Your task to perform on an android device: change notifications settings Image 0: 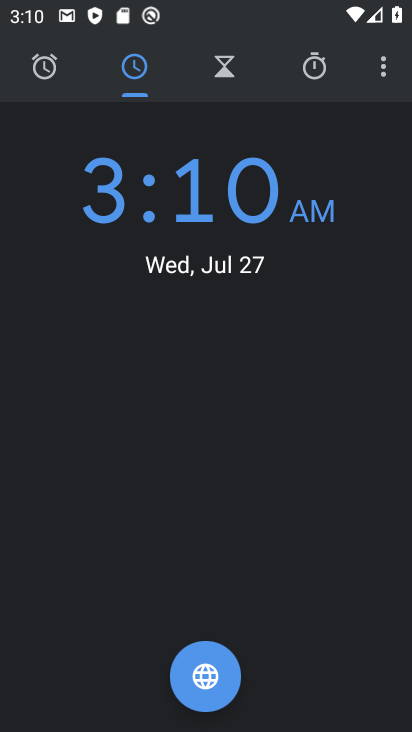
Step 0: press home button
Your task to perform on an android device: change notifications settings Image 1: 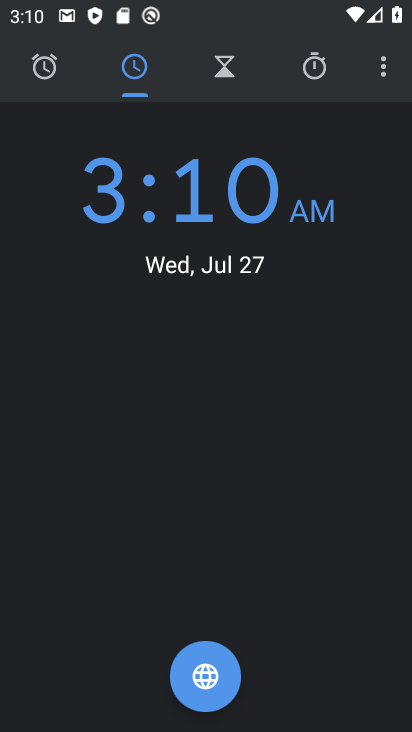
Step 1: press home button
Your task to perform on an android device: change notifications settings Image 2: 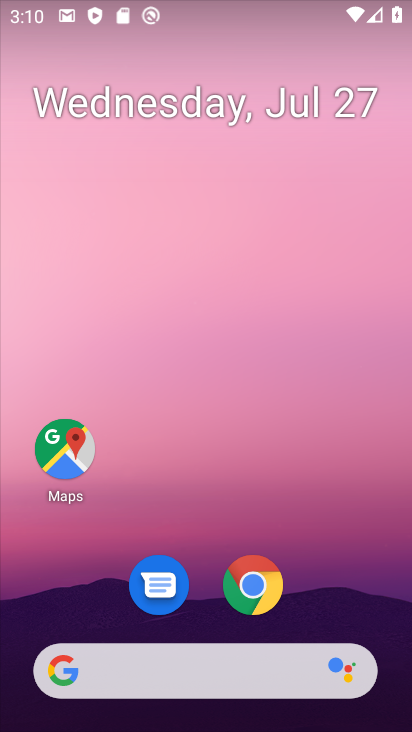
Step 2: drag from (333, 542) to (322, 72)
Your task to perform on an android device: change notifications settings Image 3: 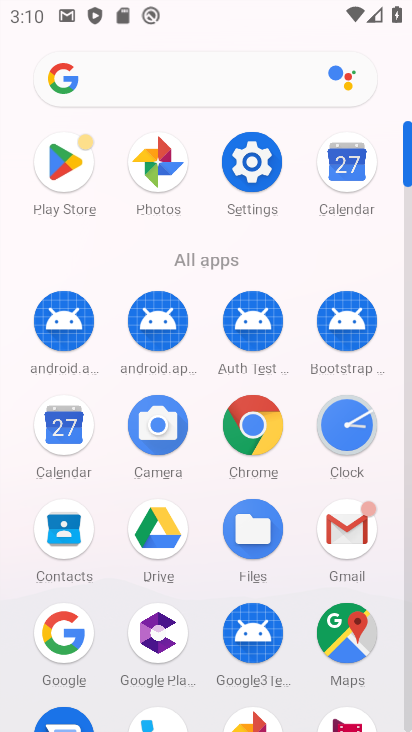
Step 3: click (252, 162)
Your task to perform on an android device: change notifications settings Image 4: 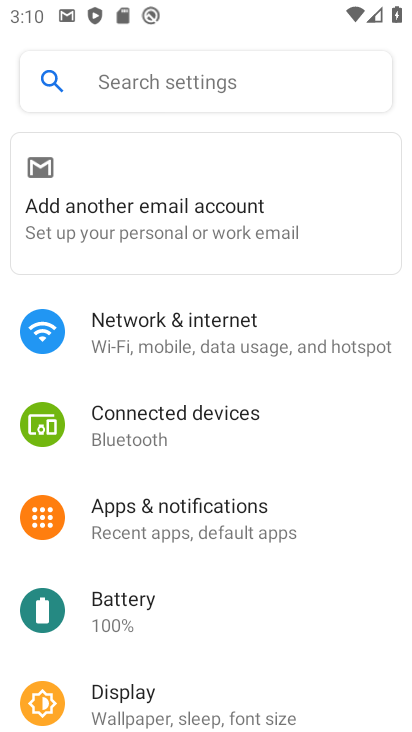
Step 4: click (231, 518)
Your task to perform on an android device: change notifications settings Image 5: 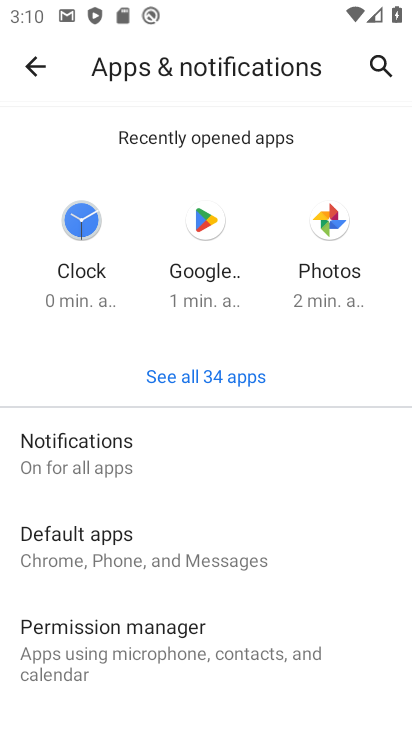
Step 5: click (115, 450)
Your task to perform on an android device: change notifications settings Image 6: 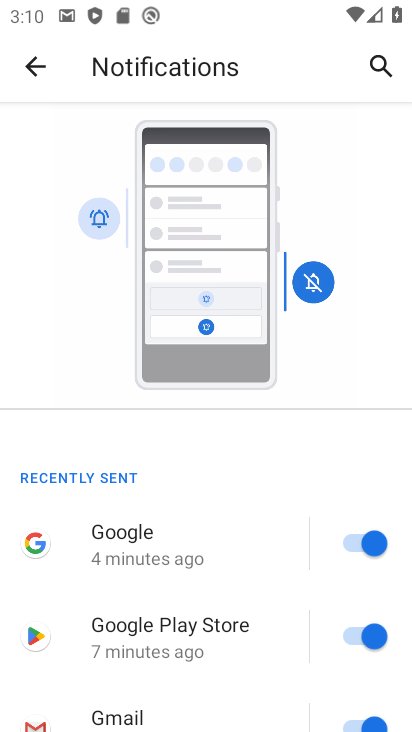
Step 6: drag from (239, 589) to (241, 82)
Your task to perform on an android device: change notifications settings Image 7: 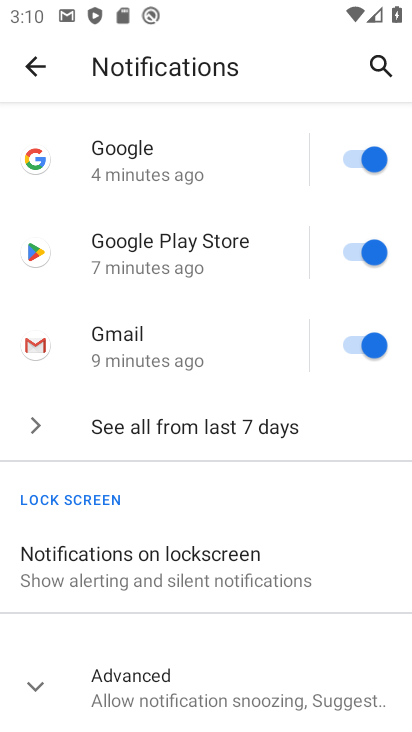
Step 7: click (252, 420)
Your task to perform on an android device: change notifications settings Image 8: 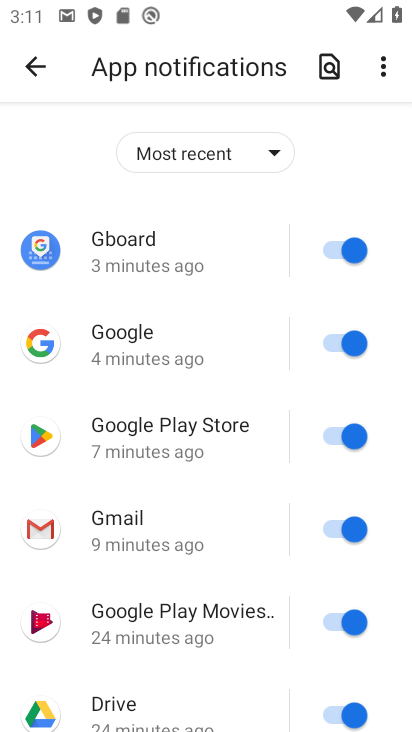
Step 8: click (342, 247)
Your task to perform on an android device: change notifications settings Image 9: 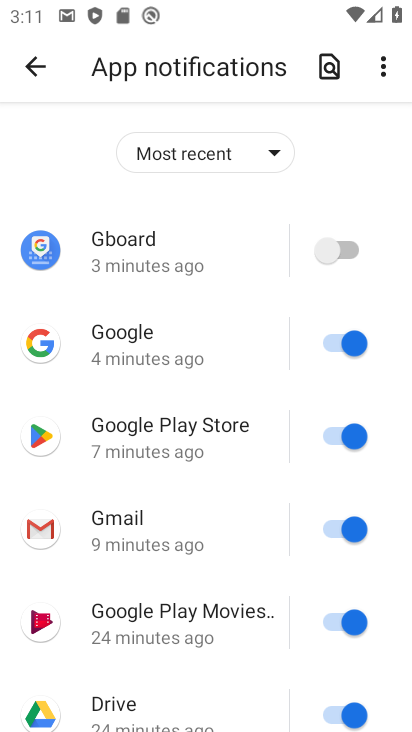
Step 9: click (352, 346)
Your task to perform on an android device: change notifications settings Image 10: 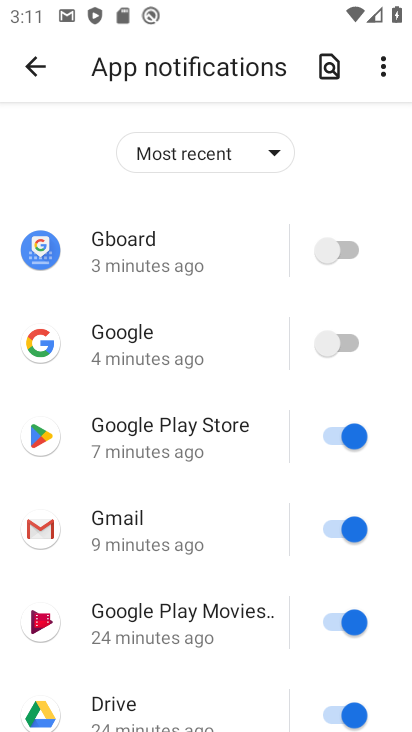
Step 10: click (350, 432)
Your task to perform on an android device: change notifications settings Image 11: 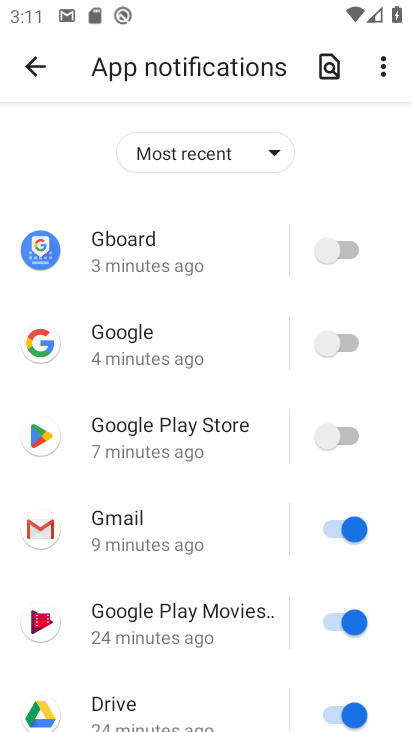
Step 11: click (347, 526)
Your task to perform on an android device: change notifications settings Image 12: 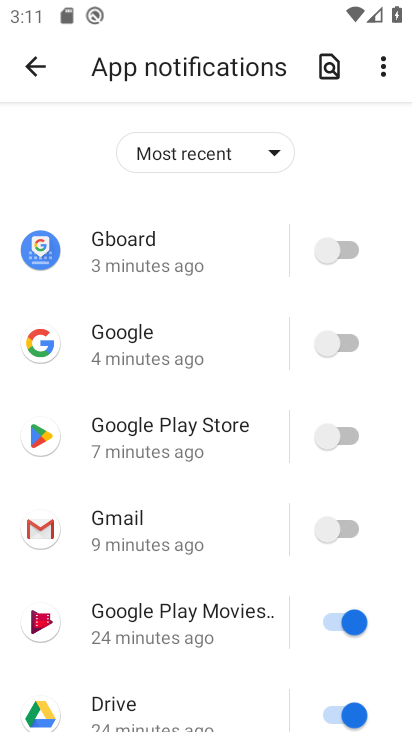
Step 12: click (345, 613)
Your task to perform on an android device: change notifications settings Image 13: 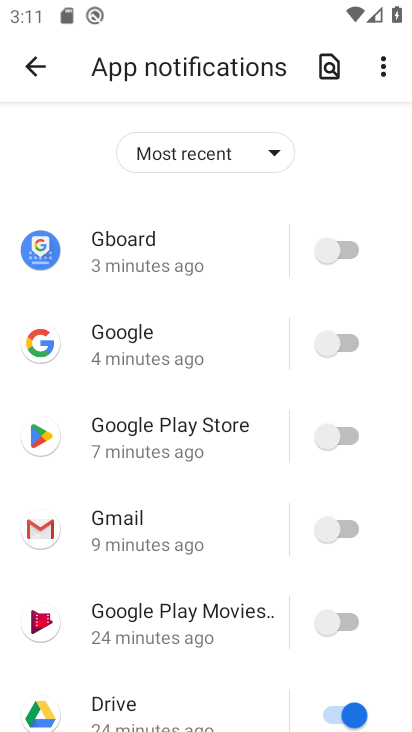
Step 13: drag from (221, 654) to (236, 118)
Your task to perform on an android device: change notifications settings Image 14: 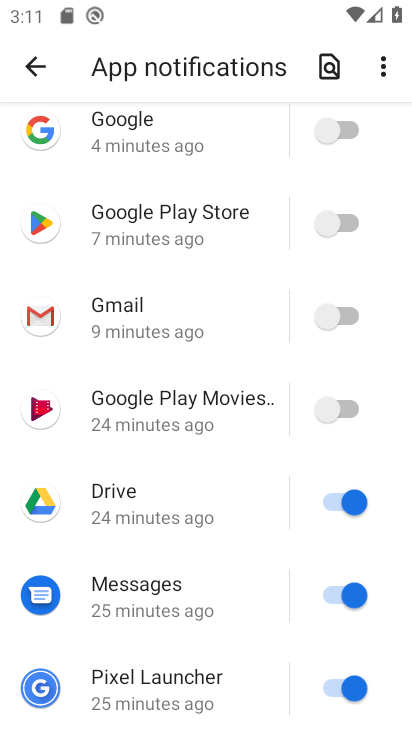
Step 14: click (354, 501)
Your task to perform on an android device: change notifications settings Image 15: 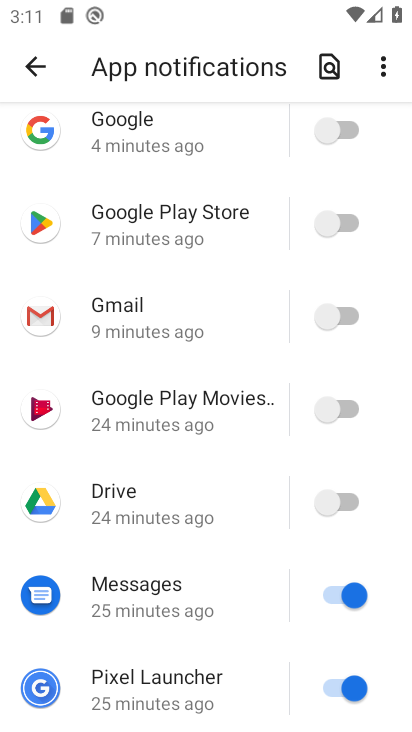
Step 15: click (349, 590)
Your task to perform on an android device: change notifications settings Image 16: 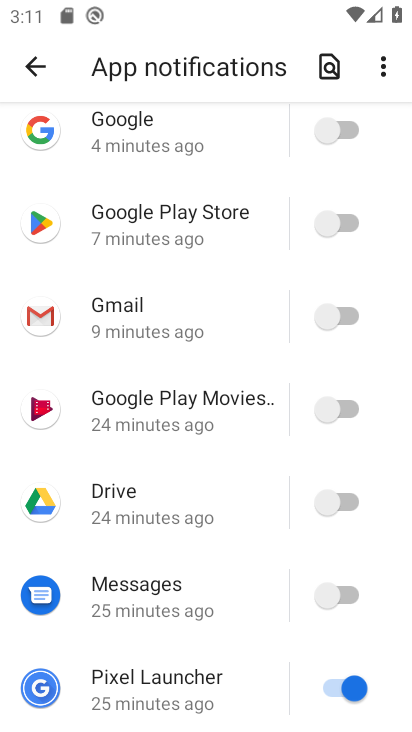
Step 16: click (344, 685)
Your task to perform on an android device: change notifications settings Image 17: 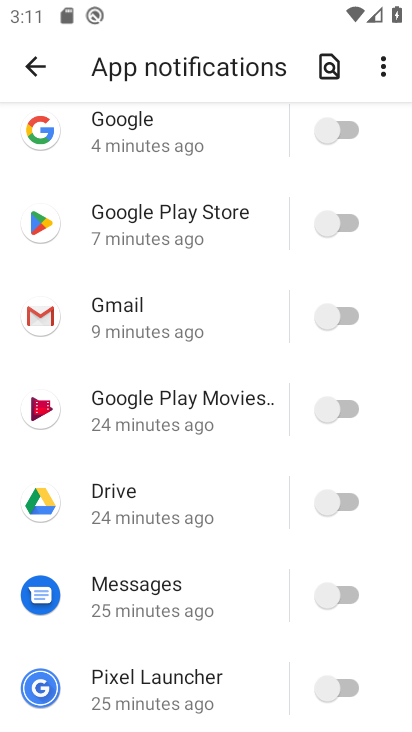
Step 17: task complete